Your task to perform on an android device: Go to accessibility settings Image 0: 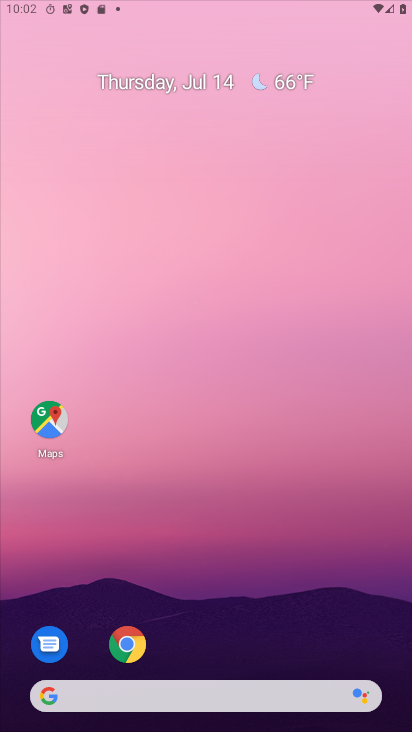
Step 0: drag from (148, 690) to (163, 247)
Your task to perform on an android device: Go to accessibility settings Image 1: 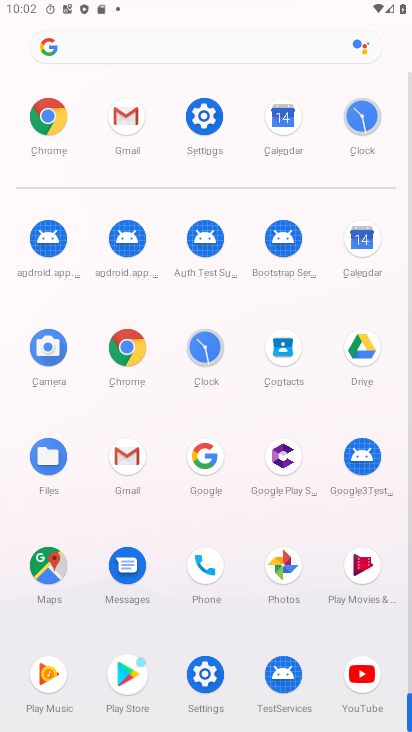
Step 1: click (196, 122)
Your task to perform on an android device: Go to accessibility settings Image 2: 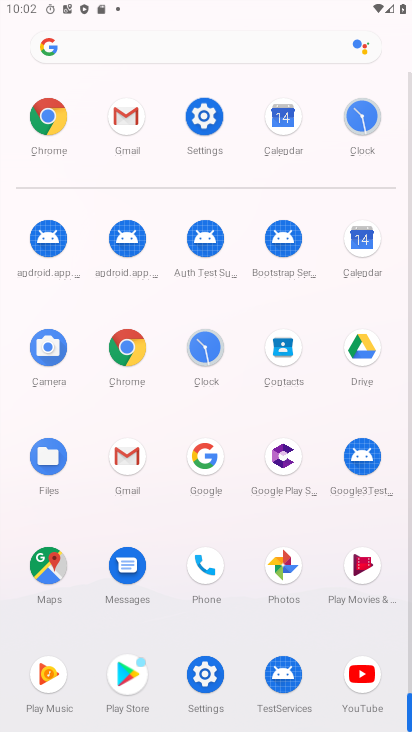
Step 2: click (198, 118)
Your task to perform on an android device: Go to accessibility settings Image 3: 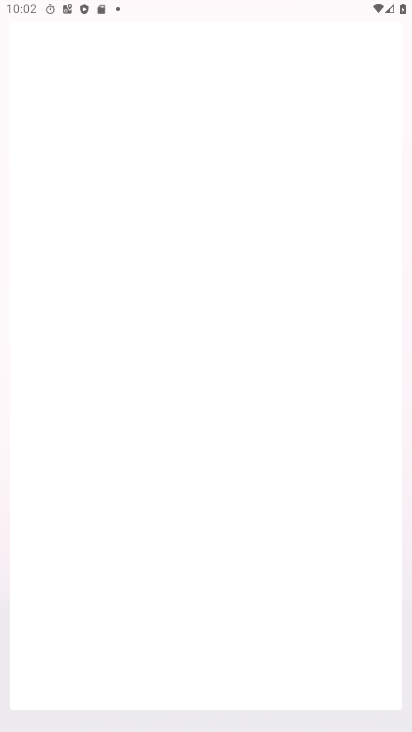
Step 3: click (199, 118)
Your task to perform on an android device: Go to accessibility settings Image 4: 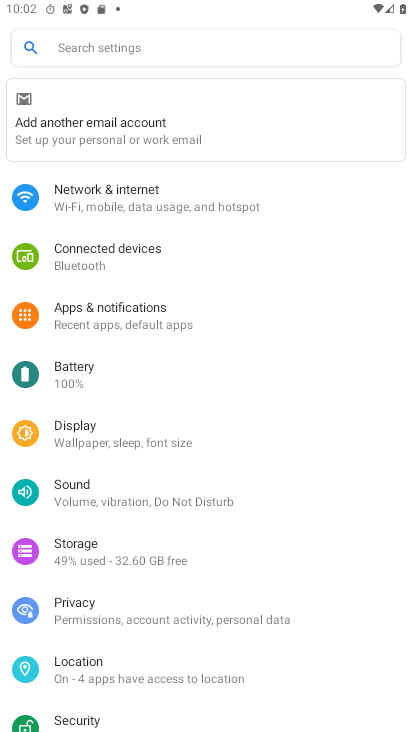
Step 4: drag from (134, 628) to (140, 288)
Your task to perform on an android device: Go to accessibility settings Image 5: 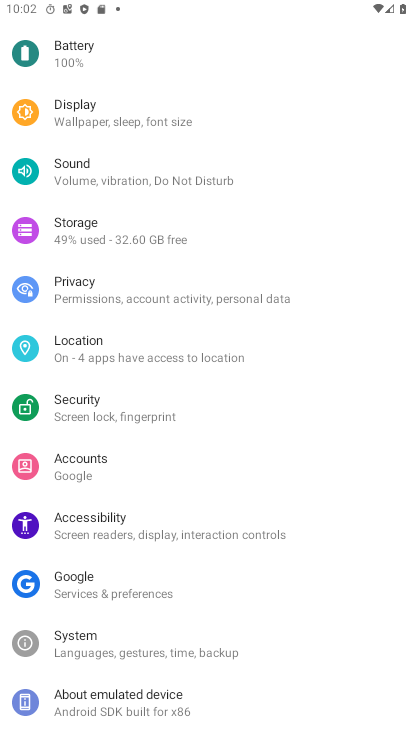
Step 5: drag from (230, 658) to (211, 311)
Your task to perform on an android device: Go to accessibility settings Image 6: 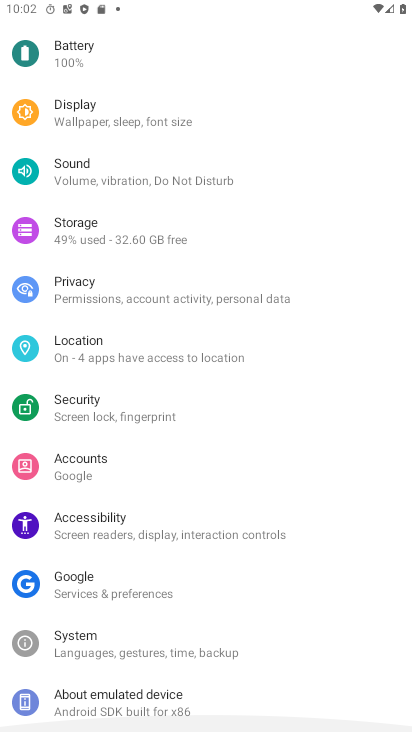
Step 6: drag from (159, 639) to (168, 286)
Your task to perform on an android device: Go to accessibility settings Image 7: 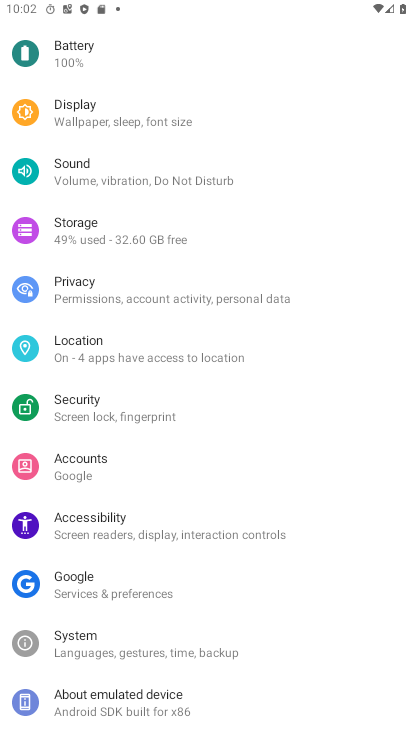
Step 7: click (99, 532)
Your task to perform on an android device: Go to accessibility settings Image 8: 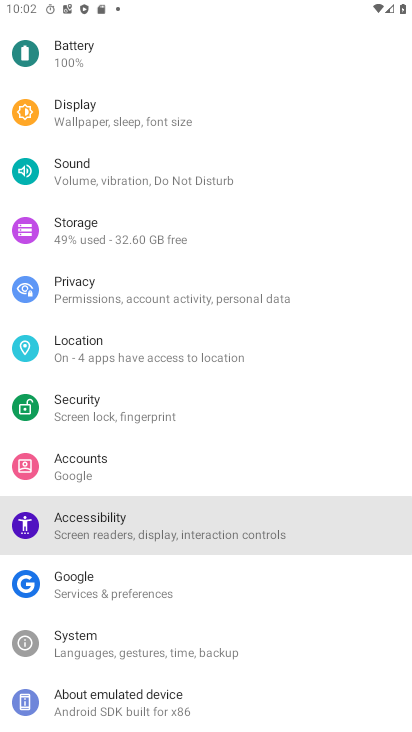
Step 8: click (96, 530)
Your task to perform on an android device: Go to accessibility settings Image 9: 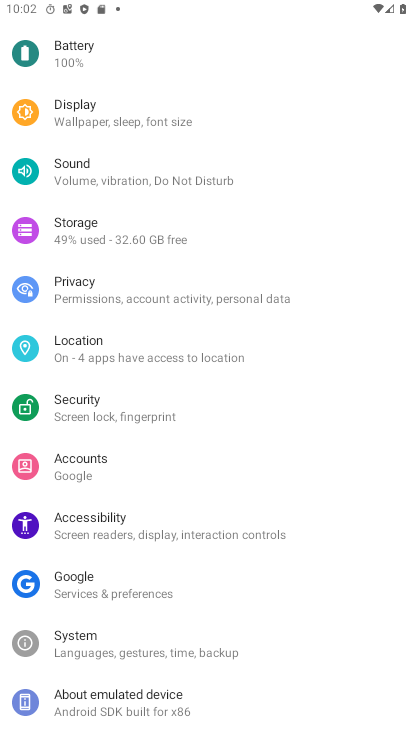
Step 9: click (98, 532)
Your task to perform on an android device: Go to accessibility settings Image 10: 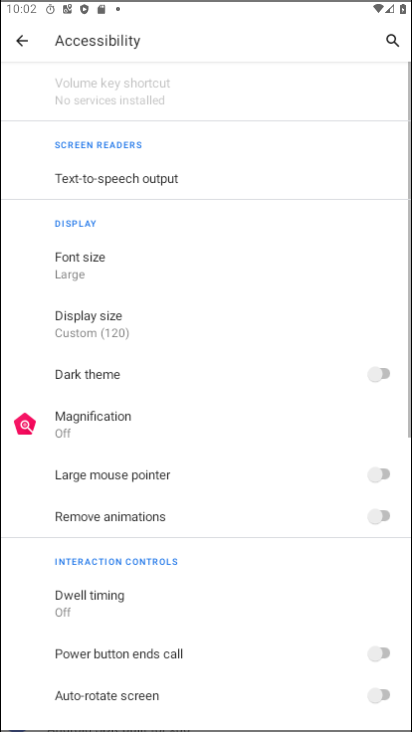
Step 10: click (116, 537)
Your task to perform on an android device: Go to accessibility settings Image 11: 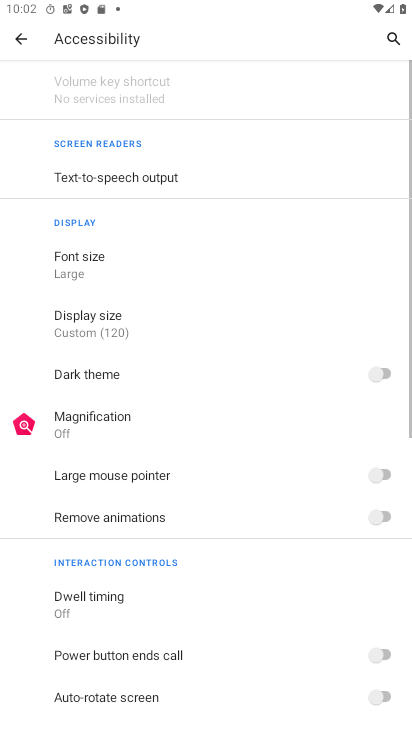
Step 11: task complete